Your task to perform on an android device: Do I have any events this weekend? Image 0: 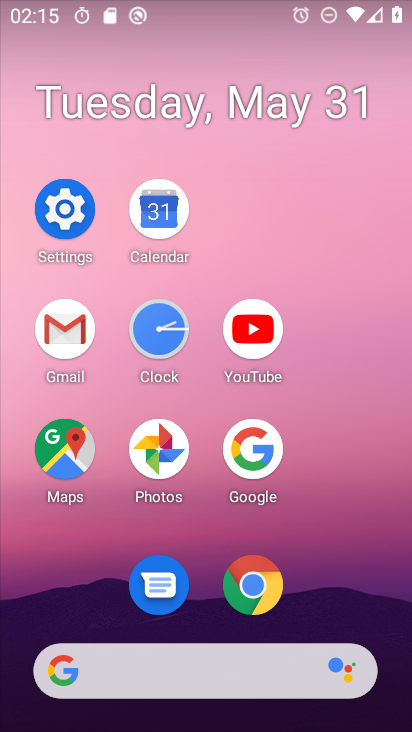
Step 0: click (165, 211)
Your task to perform on an android device: Do I have any events this weekend? Image 1: 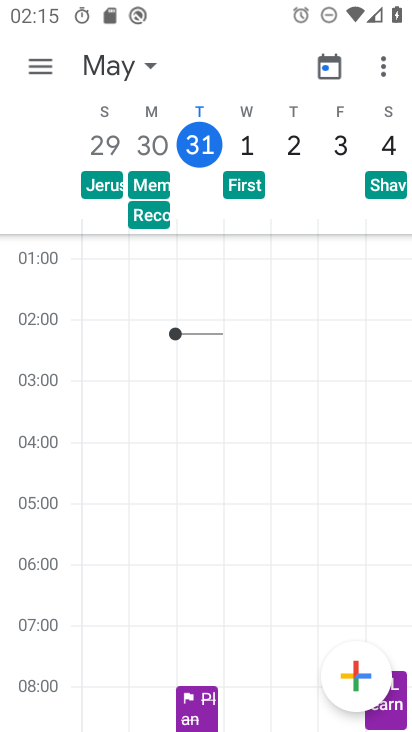
Step 1: click (36, 62)
Your task to perform on an android device: Do I have any events this weekend? Image 2: 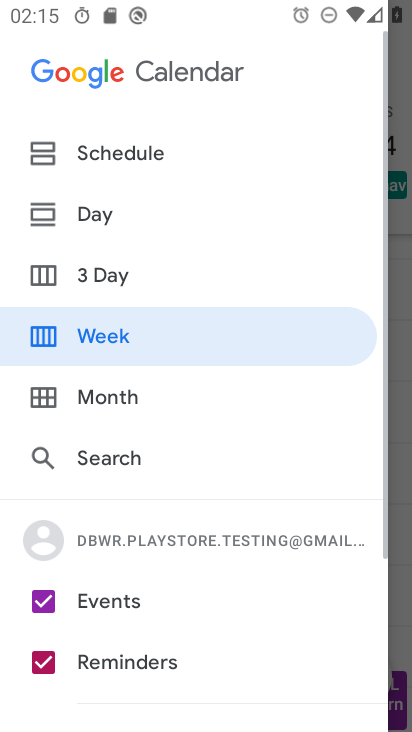
Step 2: click (153, 339)
Your task to perform on an android device: Do I have any events this weekend? Image 3: 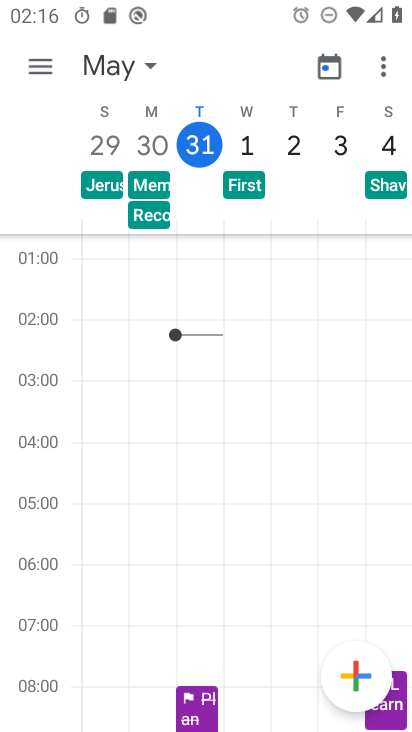
Step 3: task complete